Your task to perform on an android device: manage bookmarks in the chrome app Image 0: 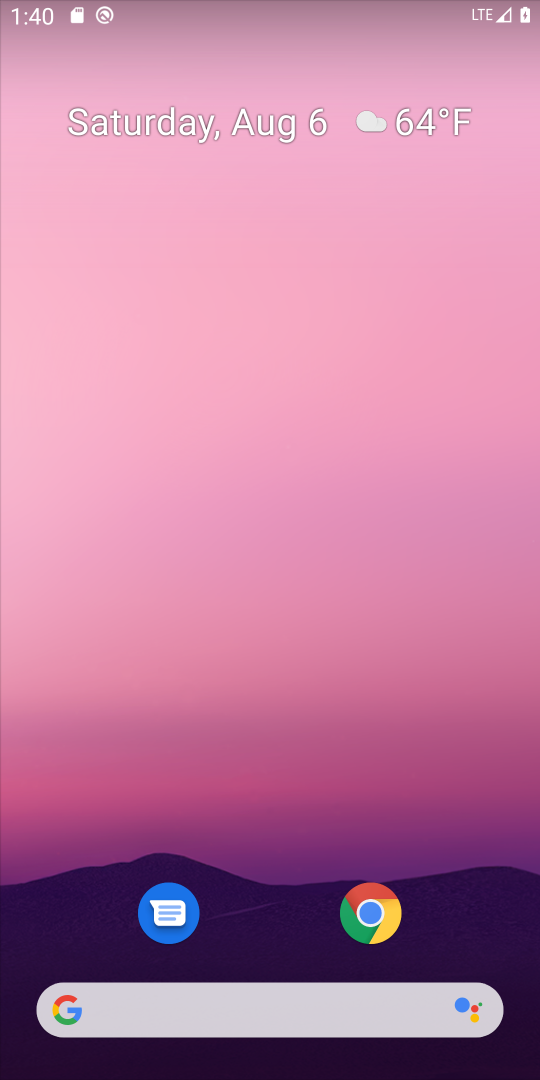
Step 0: press home button
Your task to perform on an android device: manage bookmarks in the chrome app Image 1: 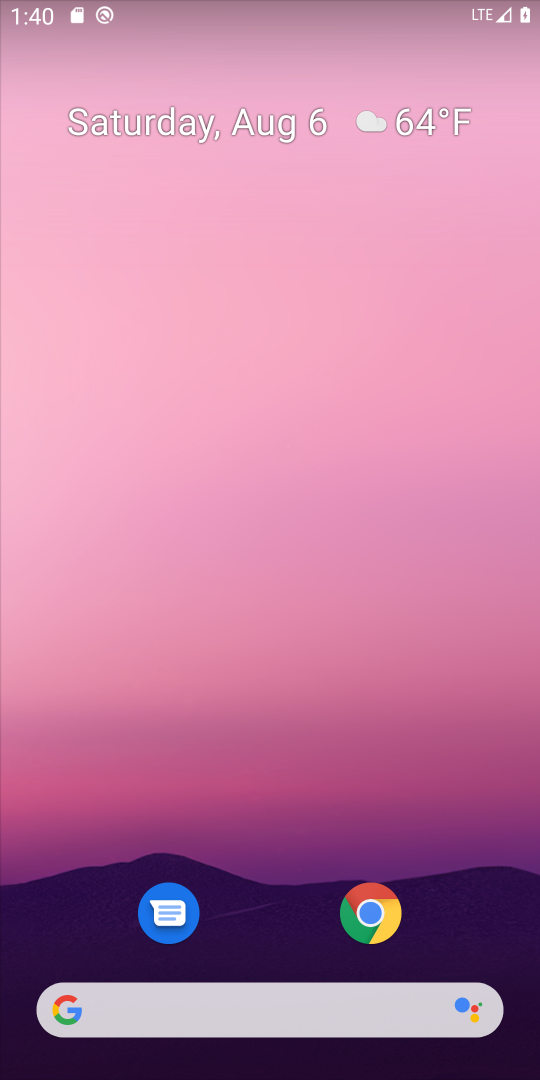
Step 1: drag from (260, 865) to (322, 419)
Your task to perform on an android device: manage bookmarks in the chrome app Image 2: 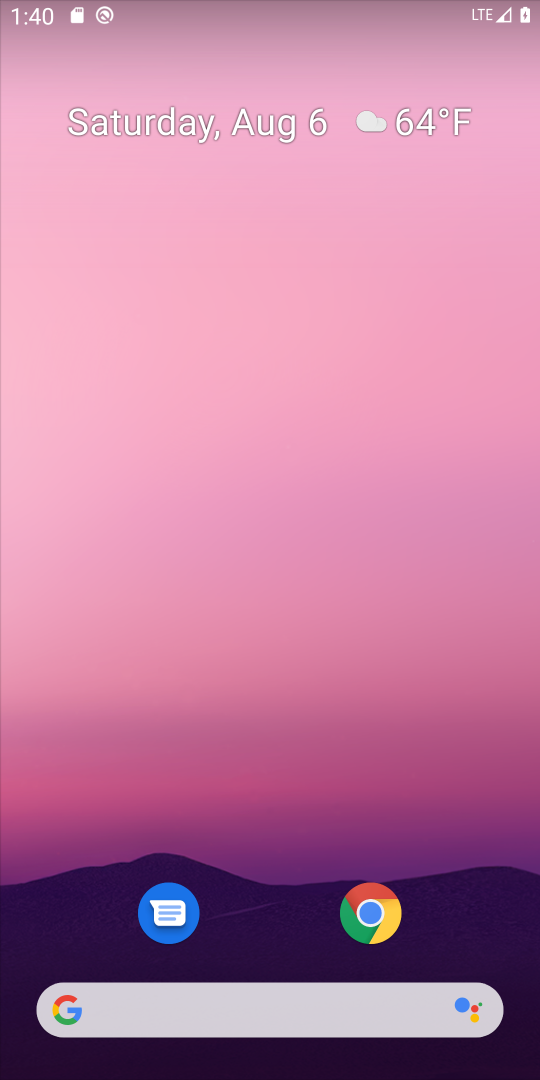
Step 2: drag from (450, 947) to (479, 249)
Your task to perform on an android device: manage bookmarks in the chrome app Image 3: 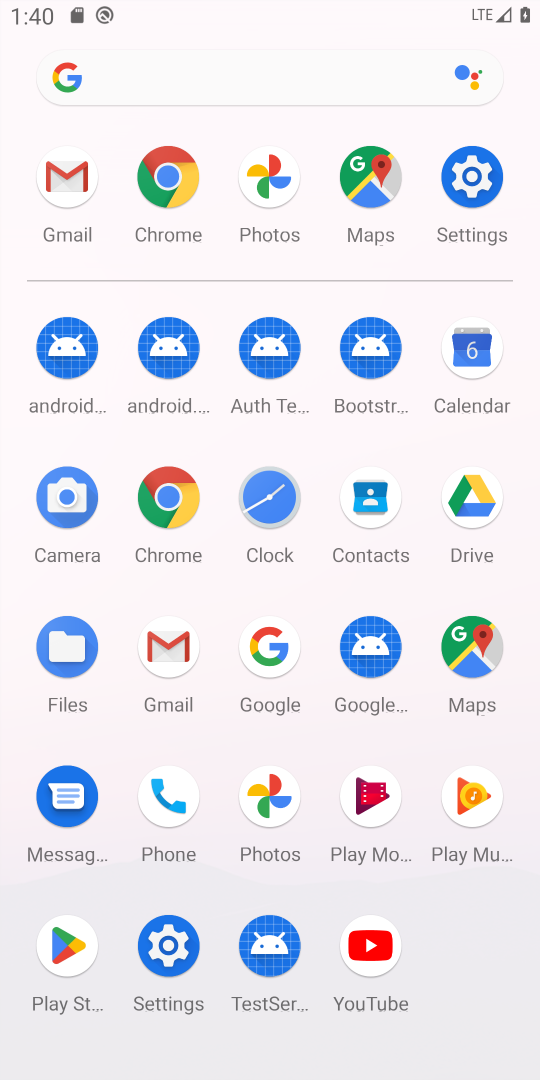
Step 3: click (178, 493)
Your task to perform on an android device: manage bookmarks in the chrome app Image 4: 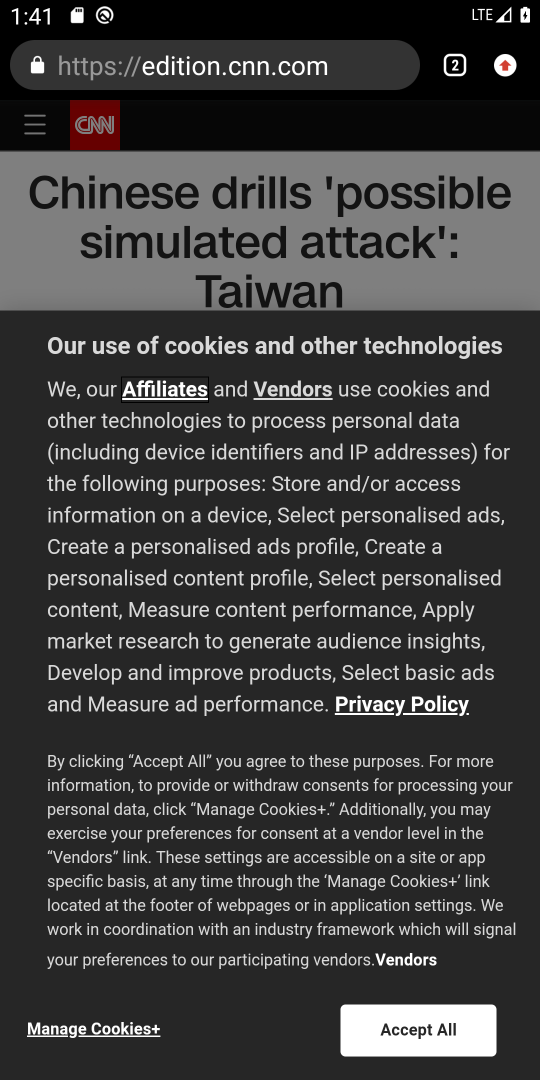
Step 4: click (505, 64)
Your task to perform on an android device: manage bookmarks in the chrome app Image 5: 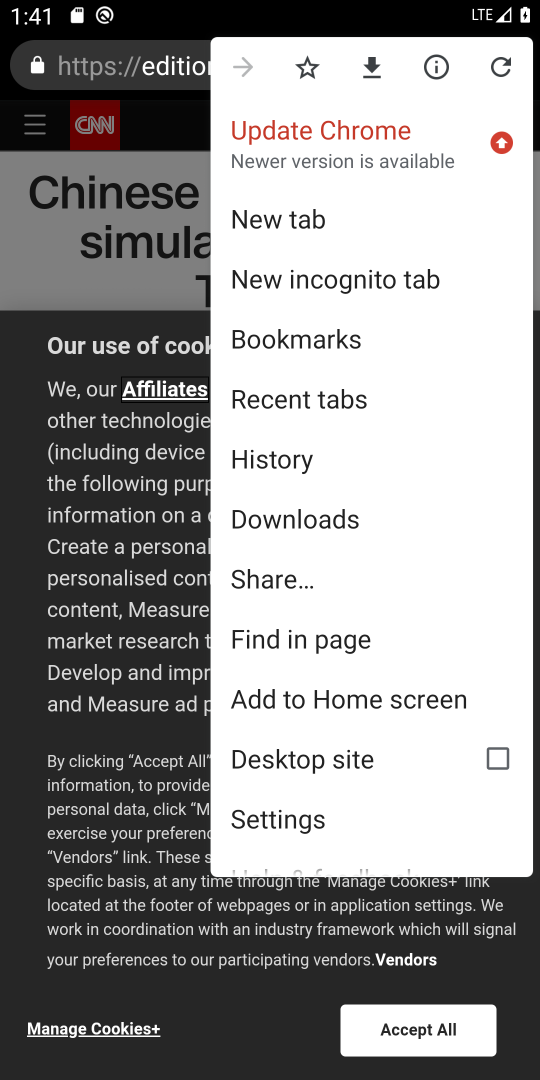
Step 5: click (367, 329)
Your task to perform on an android device: manage bookmarks in the chrome app Image 6: 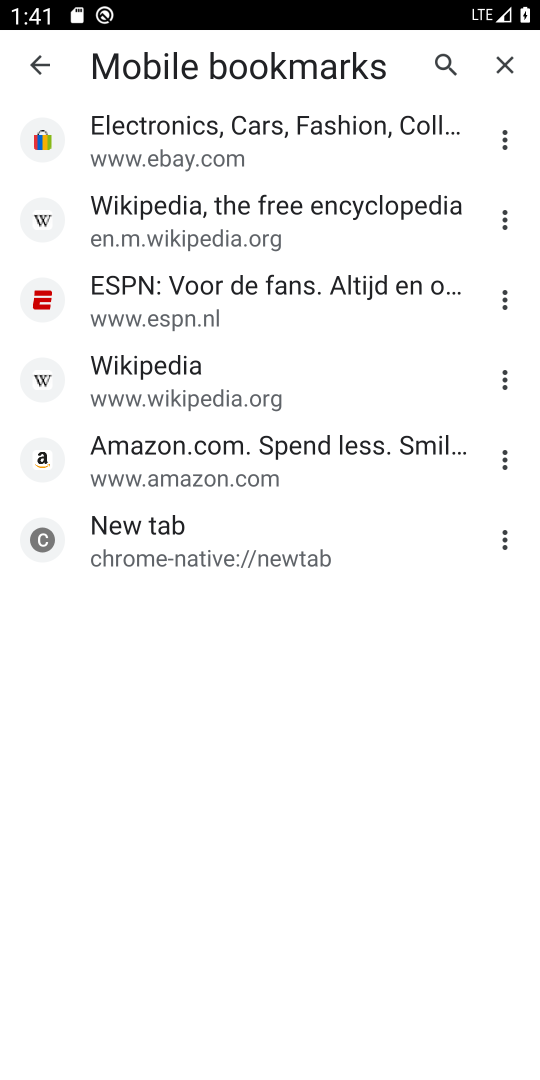
Step 6: click (508, 138)
Your task to perform on an android device: manage bookmarks in the chrome app Image 7: 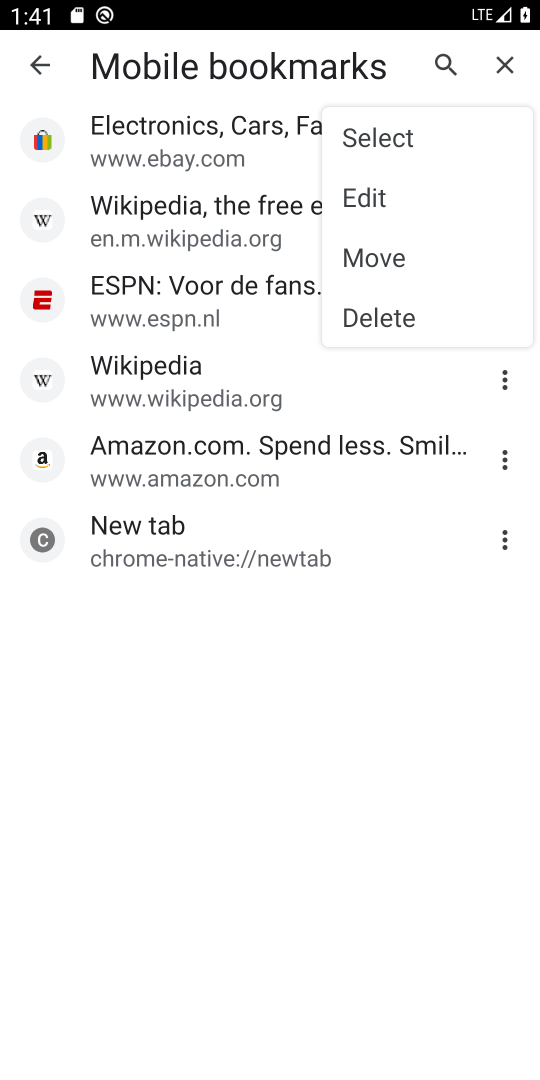
Step 7: click (390, 195)
Your task to perform on an android device: manage bookmarks in the chrome app Image 8: 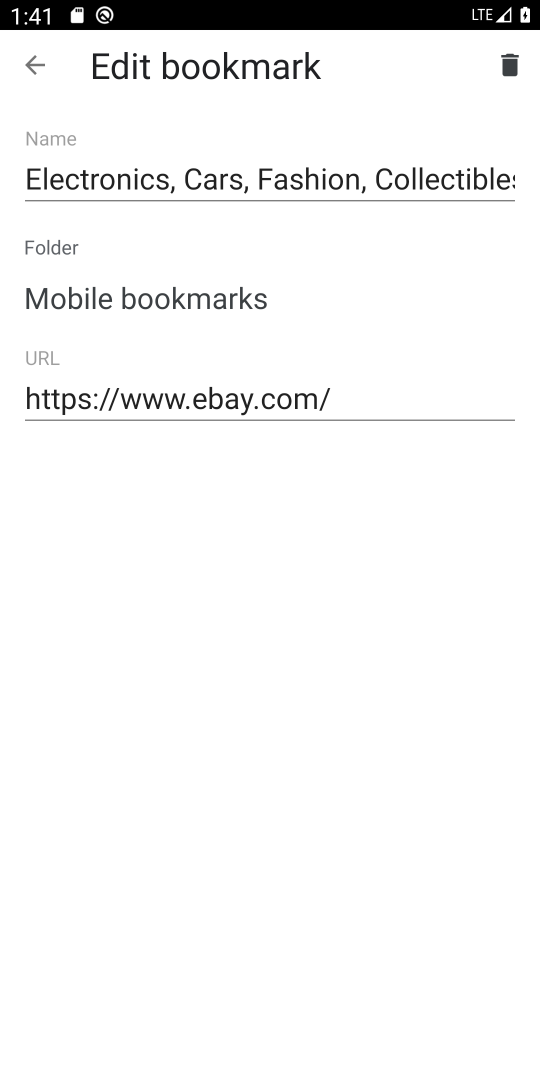
Step 8: click (365, 174)
Your task to perform on an android device: manage bookmarks in the chrome app Image 9: 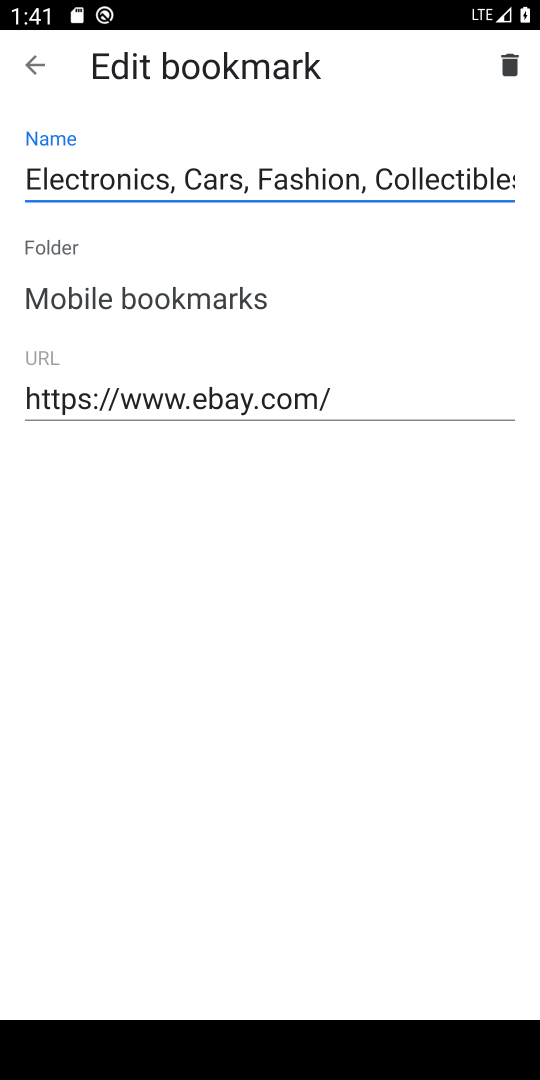
Step 9: type ","
Your task to perform on an android device: manage bookmarks in the chrome app Image 10: 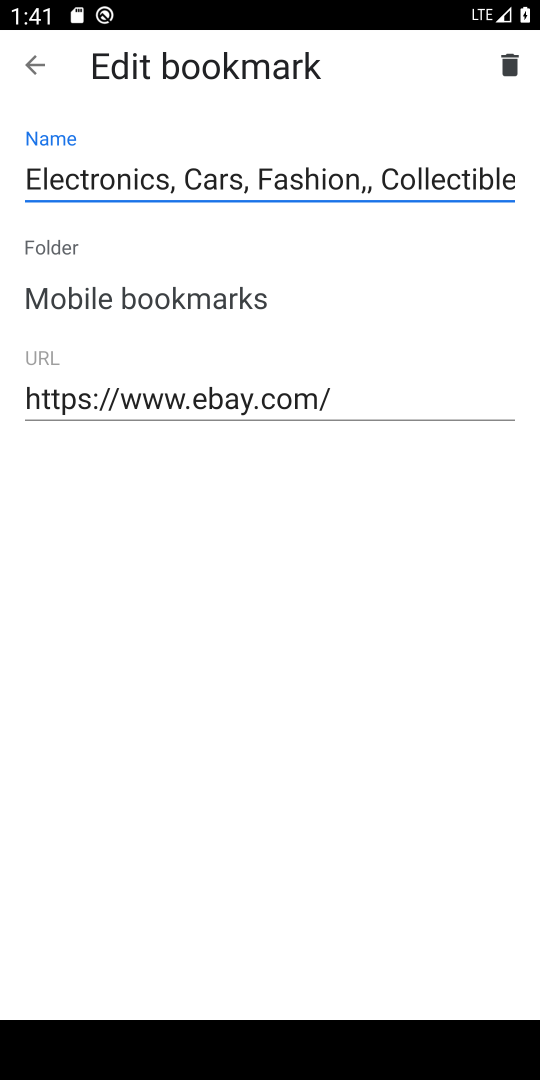
Step 10: click (31, 60)
Your task to perform on an android device: manage bookmarks in the chrome app Image 11: 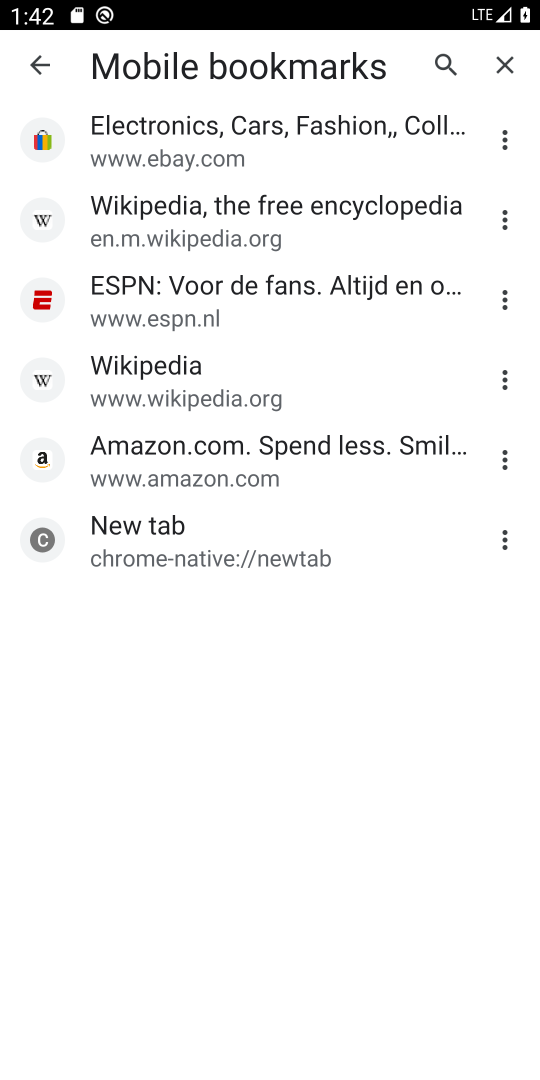
Step 11: task complete